Your task to perform on an android device: snooze an email in the gmail app Image 0: 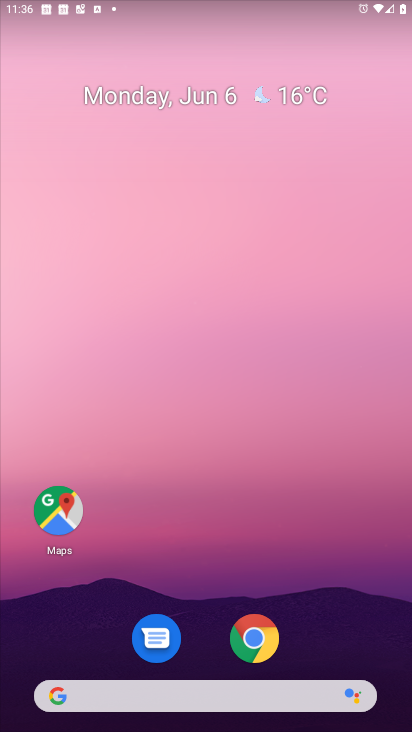
Step 0: drag from (221, 698) to (291, 117)
Your task to perform on an android device: snooze an email in the gmail app Image 1: 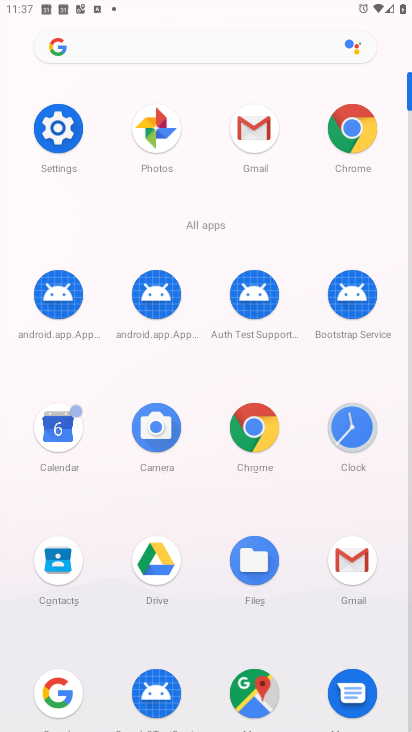
Step 1: click (257, 145)
Your task to perform on an android device: snooze an email in the gmail app Image 2: 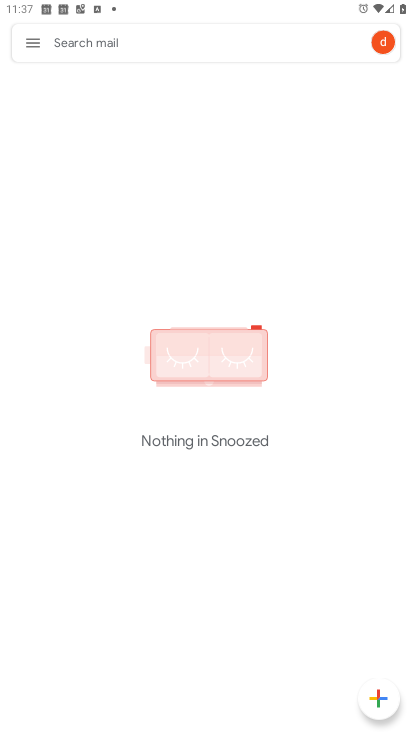
Step 2: click (44, 38)
Your task to perform on an android device: snooze an email in the gmail app Image 3: 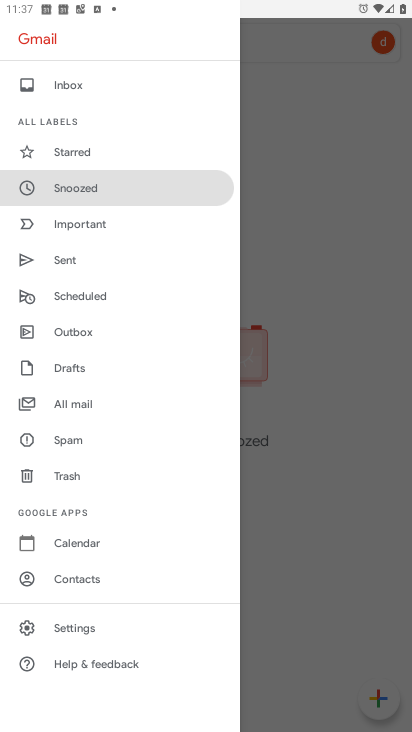
Step 3: click (73, 196)
Your task to perform on an android device: snooze an email in the gmail app Image 4: 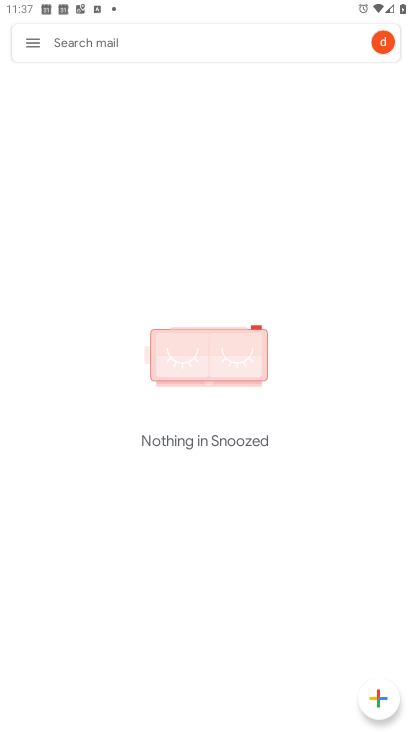
Step 4: task complete